Your task to perform on an android device: Go to Google Image 0: 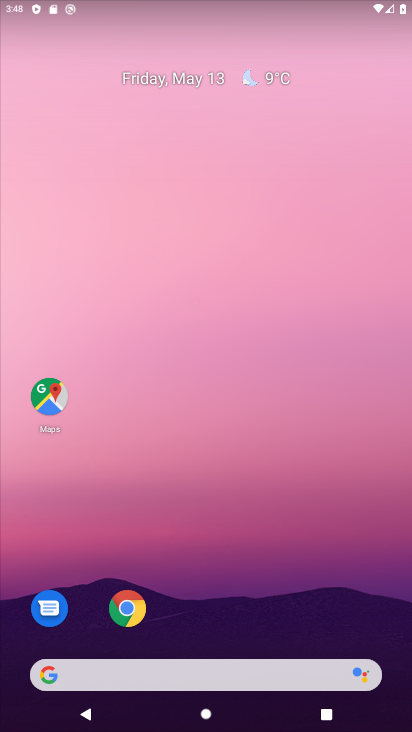
Step 0: drag from (303, 505) to (292, 31)
Your task to perform on an android device: Go to Google Image 1: 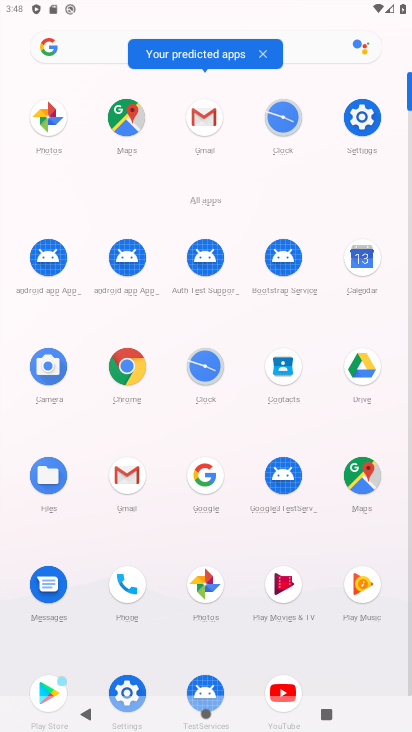
Step 1: click (212, 477)
Your task to perform on an android device: Go to Google Image 2: 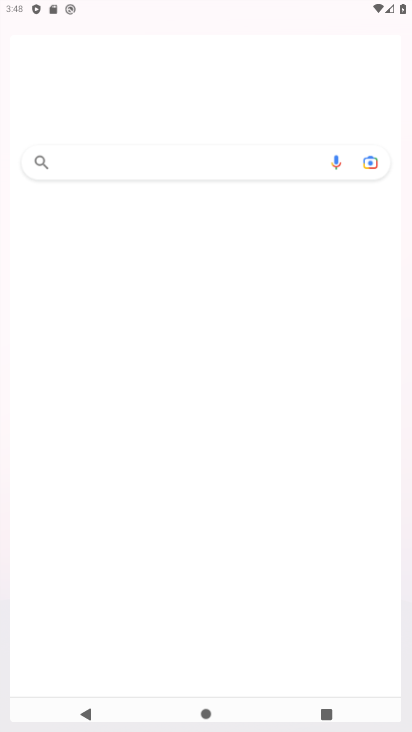
Step 2: click (209, 477)
Your task to perform on an android device: Go to Google Image 3: 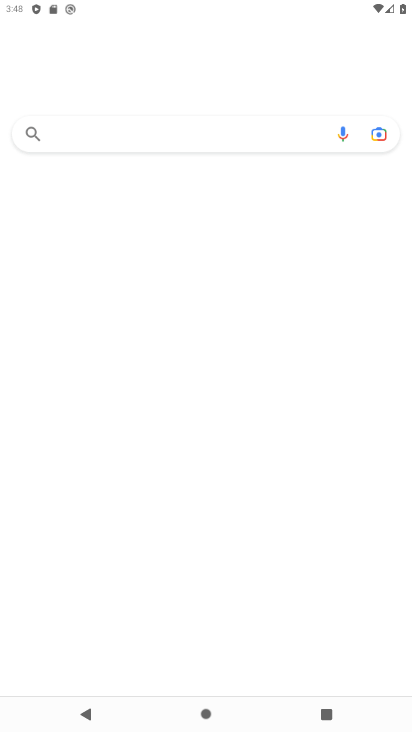
Step 3: task complete